Your task to perform on an android device: see sites visited before in the chrome app Image 0: 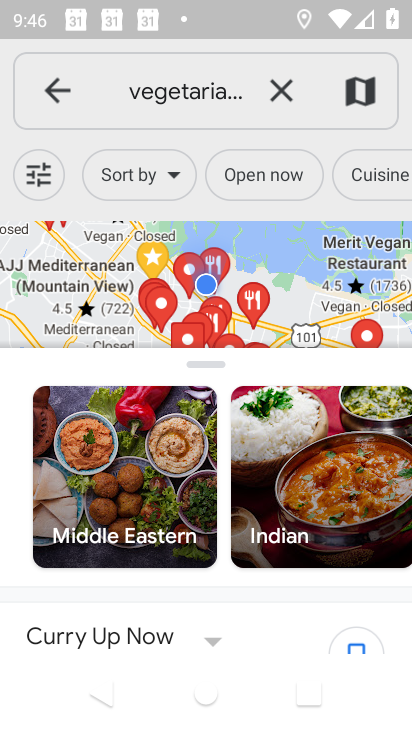
Step 0: press home button
Your task to perform on an android device: see sites visited before in the chrome app Image 1: 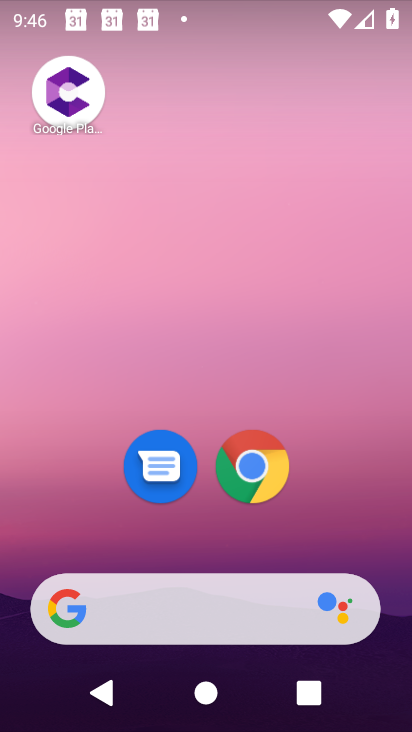
Step 1: click (250, 463)
Your task to perform on an android device: see sites visited before in the chrome app Image 2: 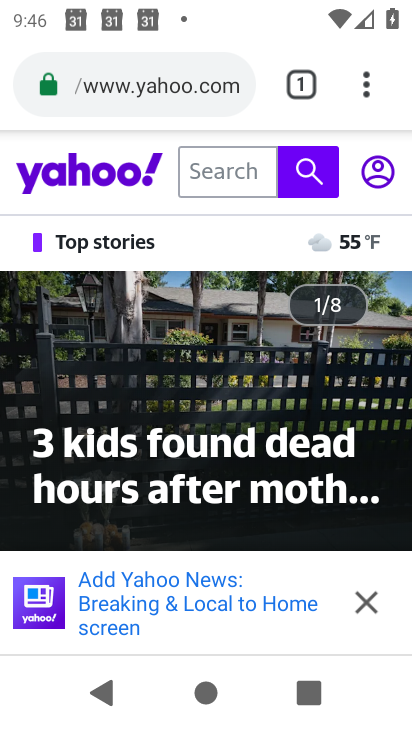
Step 2: task complete